Your task to perform on an android device: open sync settings in chrome Image 0: 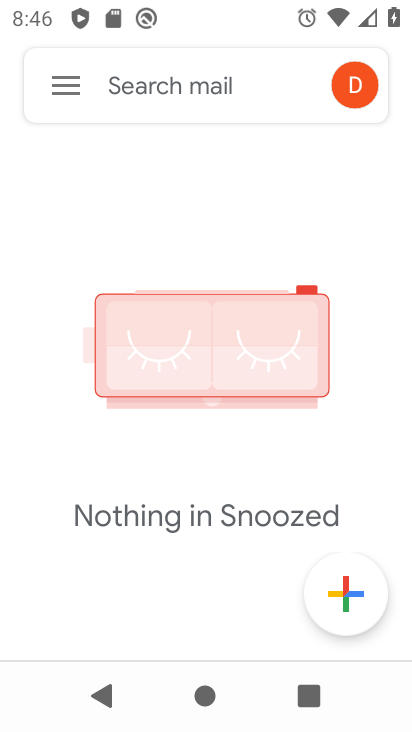
Step 0: press back button
Your task to perform on an android device: open sync settings in chrome Image 1: 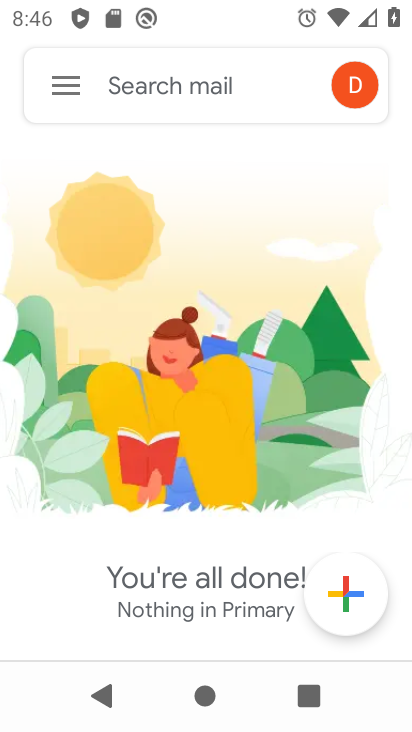
Step 1: press home button
Your task to perform on an android device: open sync settings in chrome Image 2: 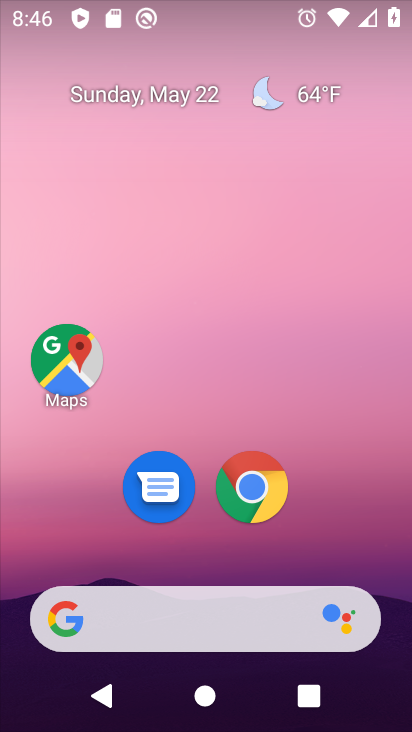
Step 2: click (271, 494)
Your task to perform on an android device: open sync settings in chrome Image 3: 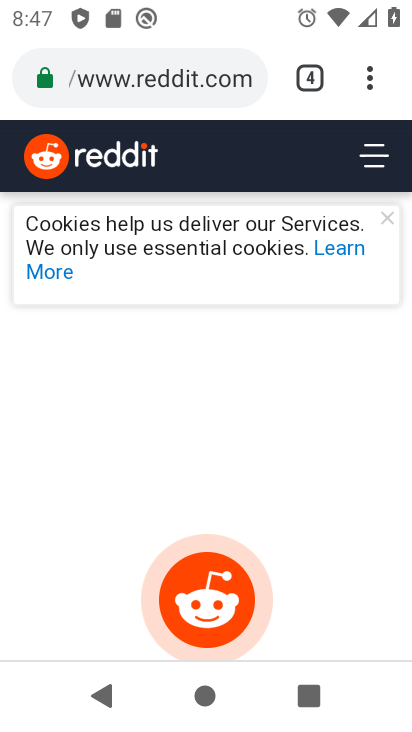
Step 3: drag from (363, 69) to (111, 543)
Your task to perform on an android device: open sync settings in chrome Image 4: 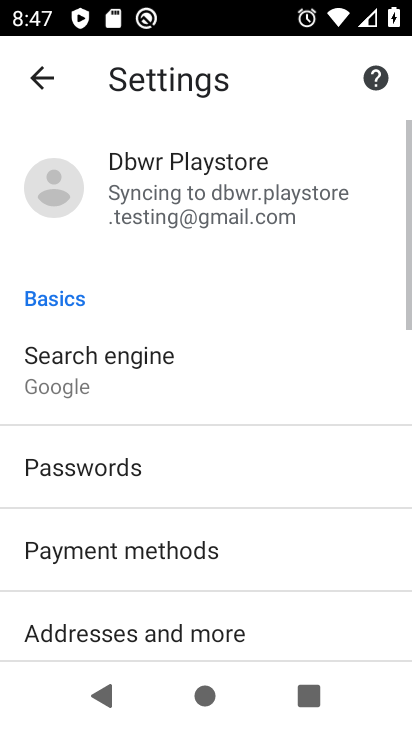
Step 4: click (167, 171)
Your task to perform on an android device: open sync settings in chrome Image 5: 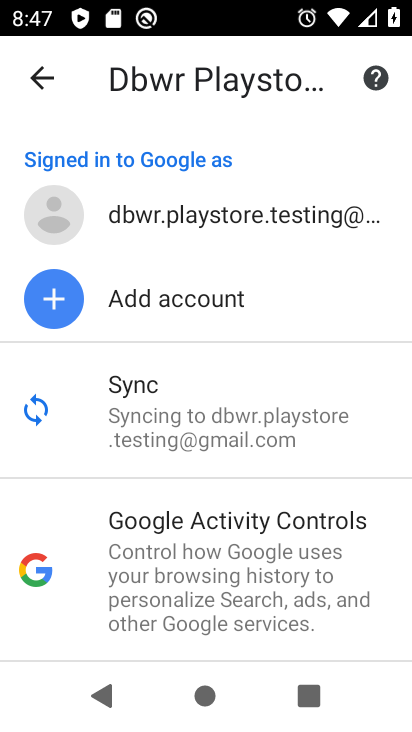
Step 5: task complete